Your task to perform on an android device: Toggle the flashlight Image 0: 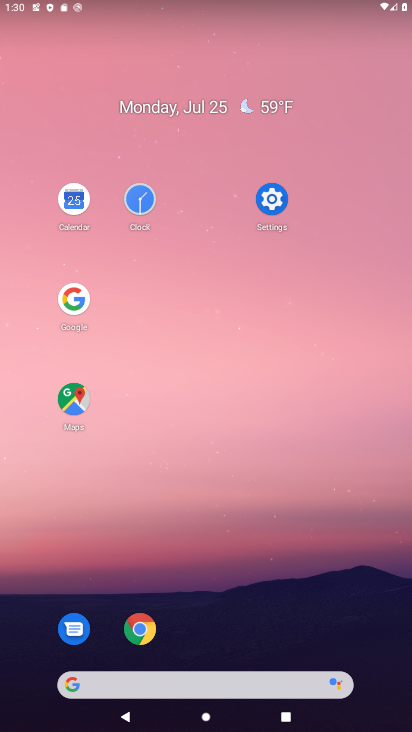
Step 0: drag from (251, 2) to (270, 360)
Your task to perform on an android device: Toggle the flashlight Image 1: 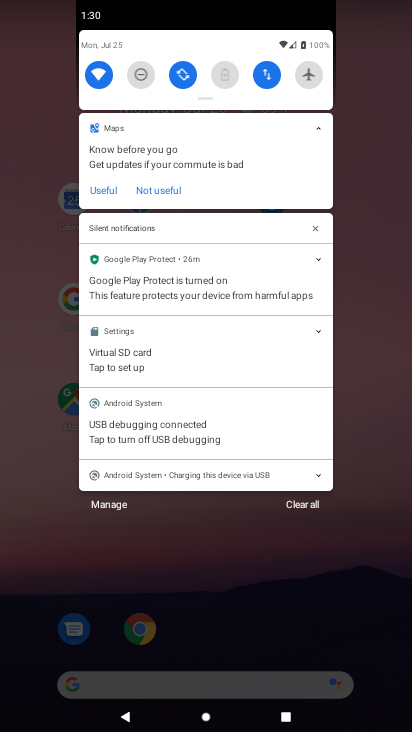
Step 1: task complete